Your task to perform on an android device: open chrome privacy settings Image 0: 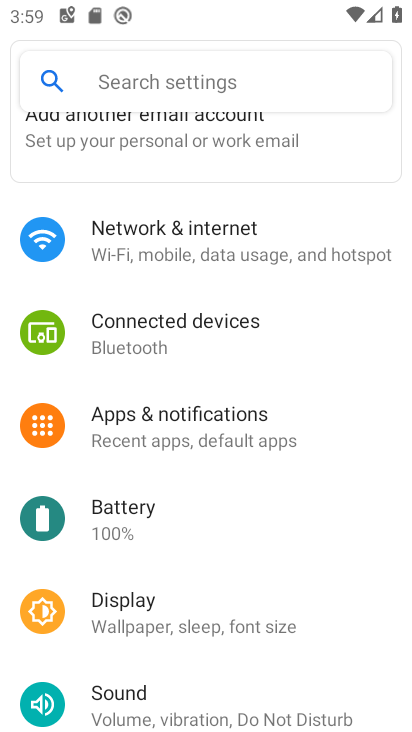
Step 0: press home button
Your task to perform on an android device: open chrome privacy settings Image 1: 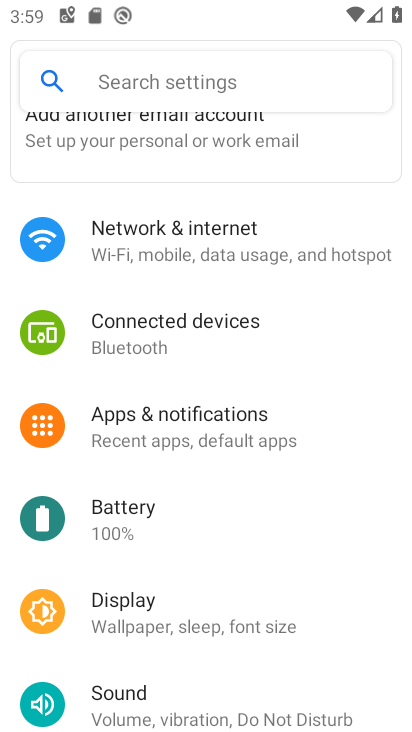
Step 1: press home button
Your task to perform on an android device: open chrome privacy settings Image 2: 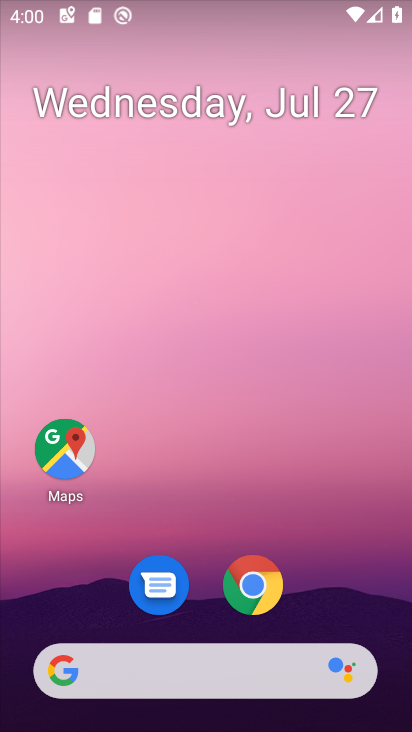
Step 2: click (237, 583)
Your task to perform on an android device: open chrome privacy settings Image 3: 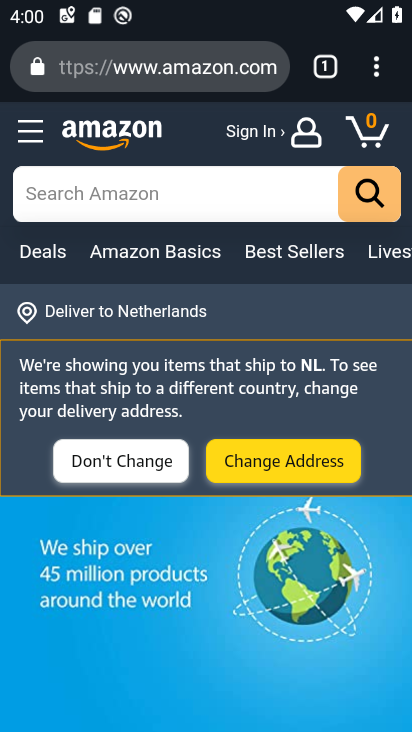
Step 3: click (379, 67)
Your task to perform on an android device: open chrome privacy settings Image 4: 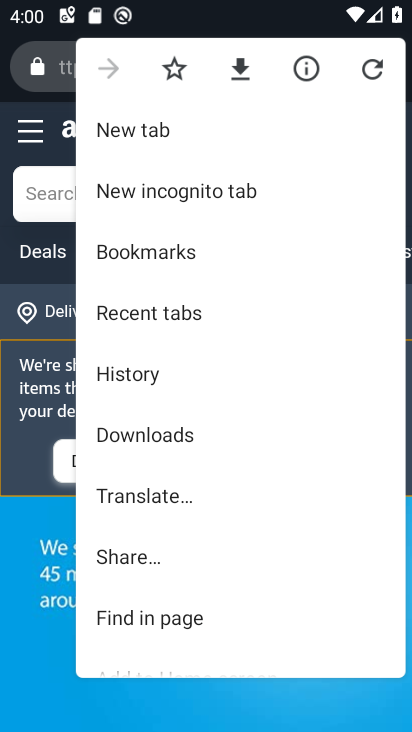
Step 4: drag from (254, 554) to (295, 161)
Your task to perform on an android device: open chrome privacy settings Image 5: 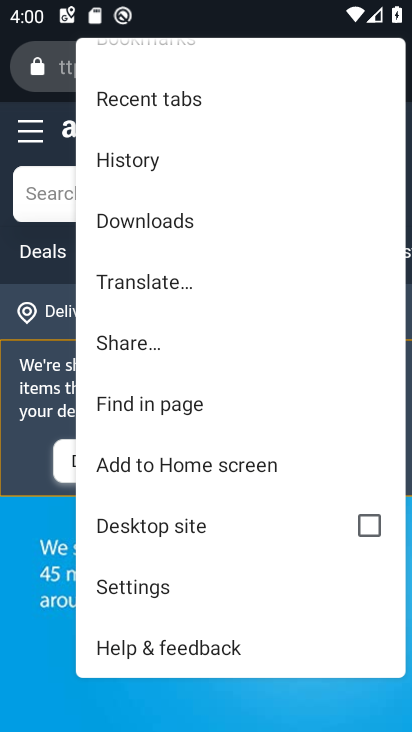
Step 5: click (150, 592)
Your task to perform on an android device: open chrome privacy settings Image 6: 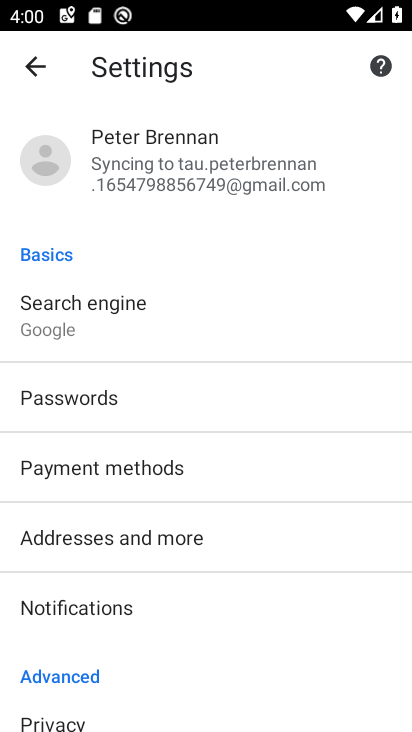
Step 6: drag from (262, 582) to (274, 486)
Your task to perform on an android device: open chrome privacy settings Image 7: 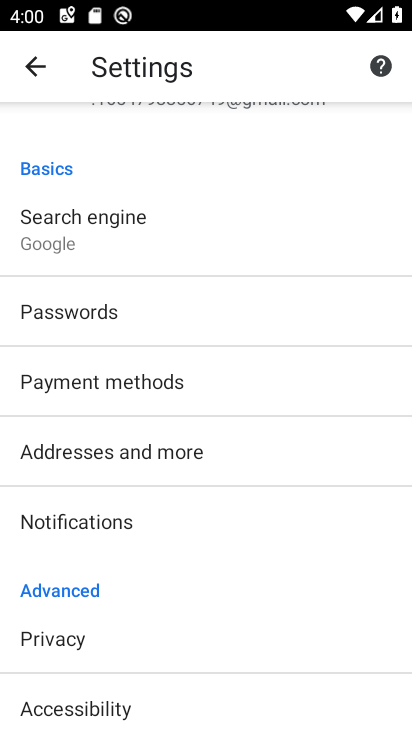
Step 7: click (62, 633)
Your task to perform on an android device: open chrome privacy settings Image 8: 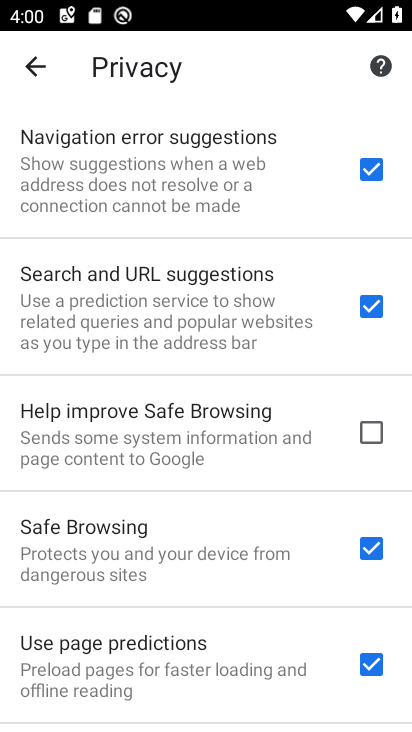
Step 8: task complete